Your task to perform on an android device: check data usage Image 0: 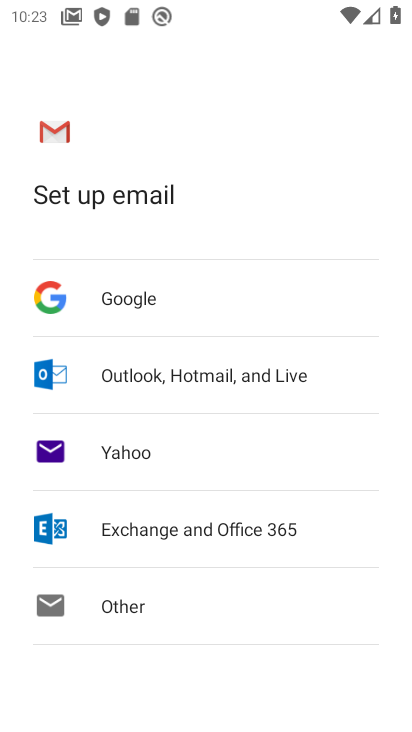
Step 0: press home button
Your task to perform on an android device: check data usage Image 1: 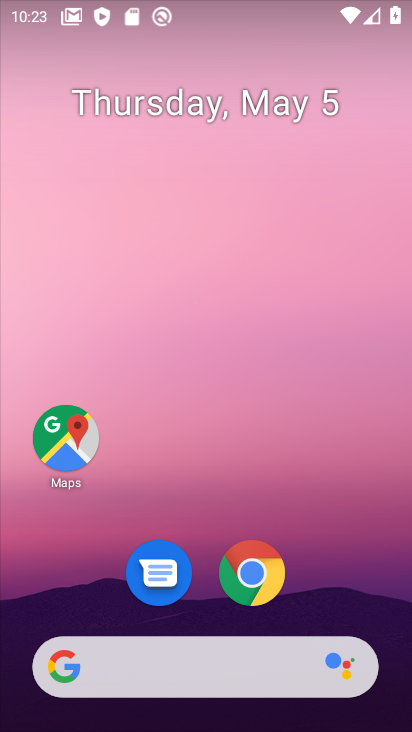
Step 1: drag from (45, 597) to (315, 166)
Your task to perform on an android device: check data usage Image 2: 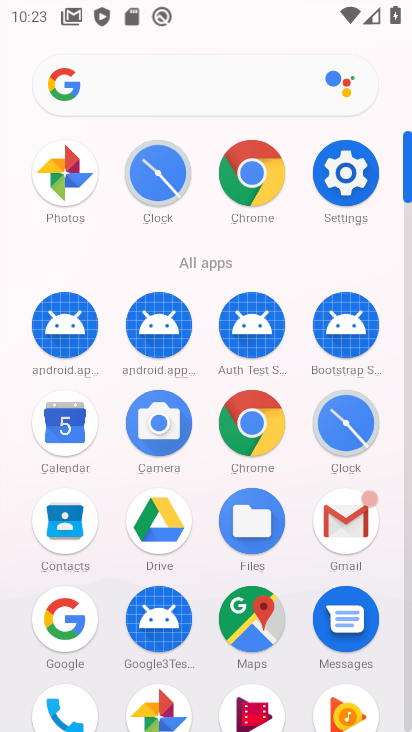
Step 2: click (347, 162)
Your task to perform on an android device: check data usage Image 3: 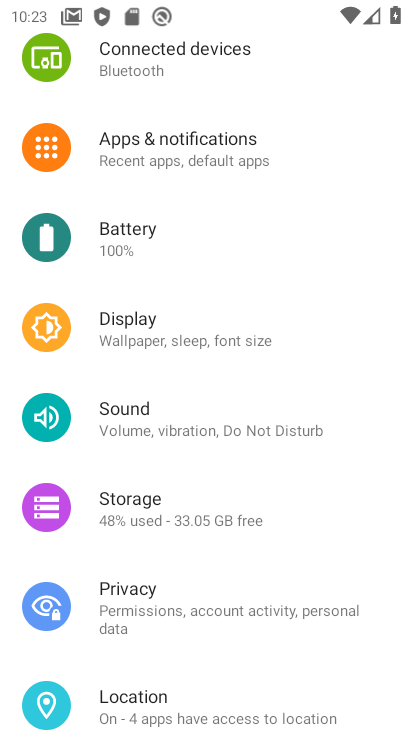
Step 3: drag from (205, 119) to (194, 485)
Your task to perform on an android device: check data usage Image 4: 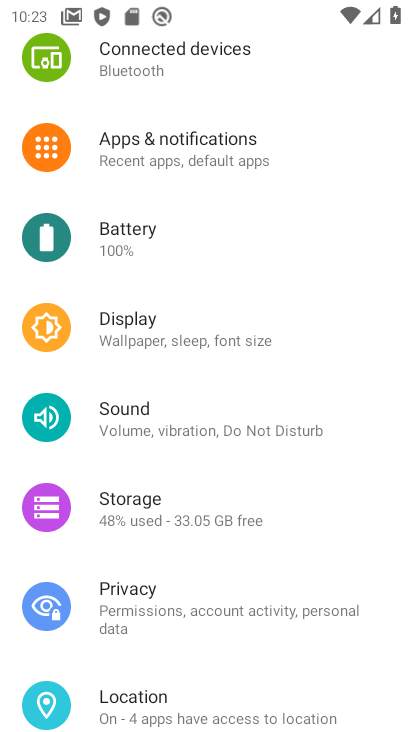
Step 4: drag from (175, 90) to (175, 464)
Your task to perform on an android device: check data usage Image 5: 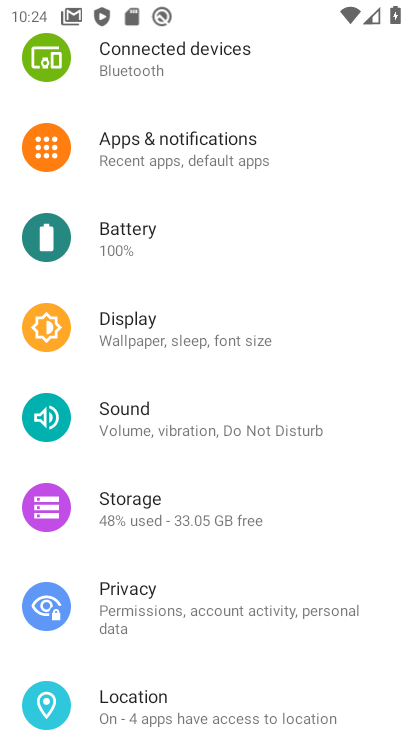
Step 5: drag from (183, 210) to (193, 500)
Your task to perform on an android device: check data usage Image 6: 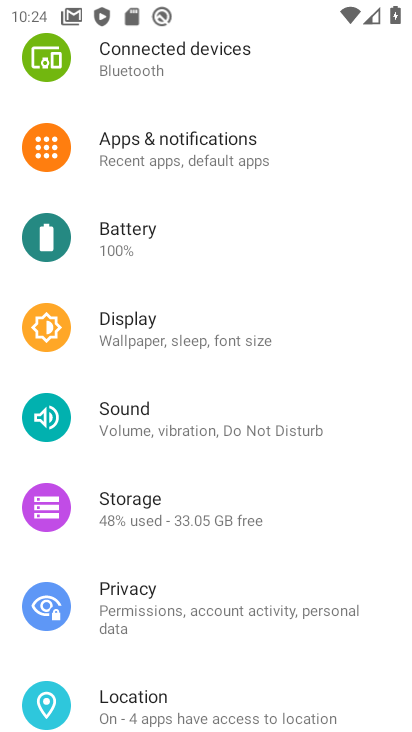
Step 6: drag from (181, 155) to (166, 438)
Your task to perform on an android device: check data usage Image 7: 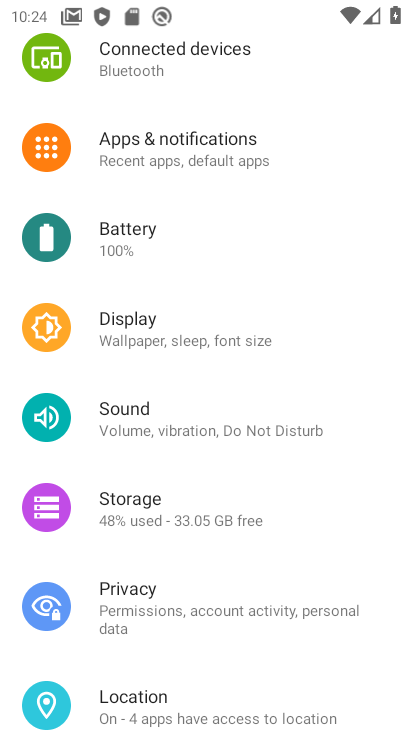
Step 7: drag from (138, 445) to (281, 122)
Your task to perform on an android device: check data usage Image 8: 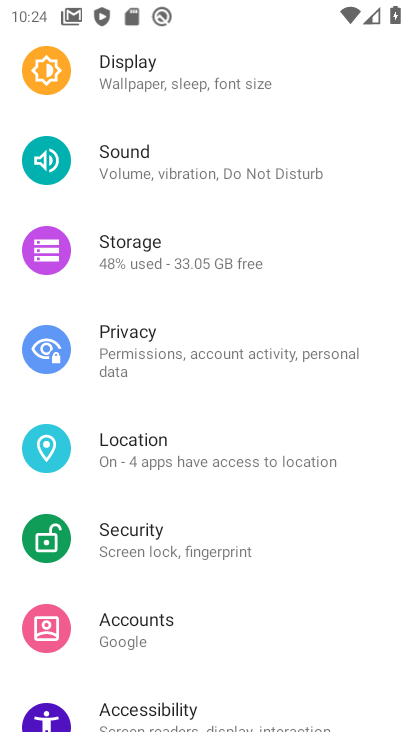
Step 8: drag from (300, 101) to (267, 690)
Your task to perform on an android device: check data usage Image 9: 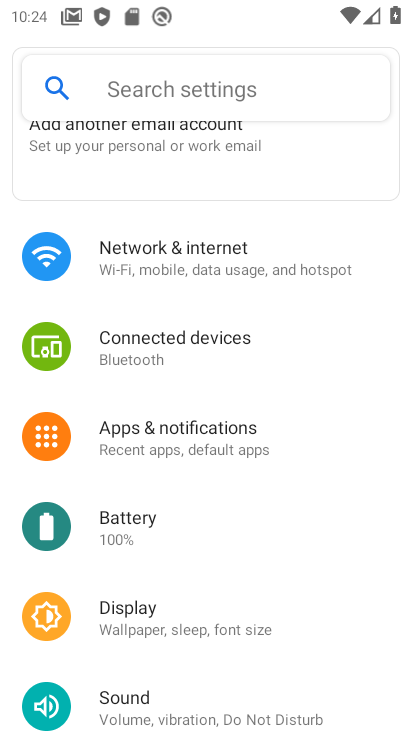
Step 9: click (211, 257)
Your task to perform on an android device: check data usage Image 10: 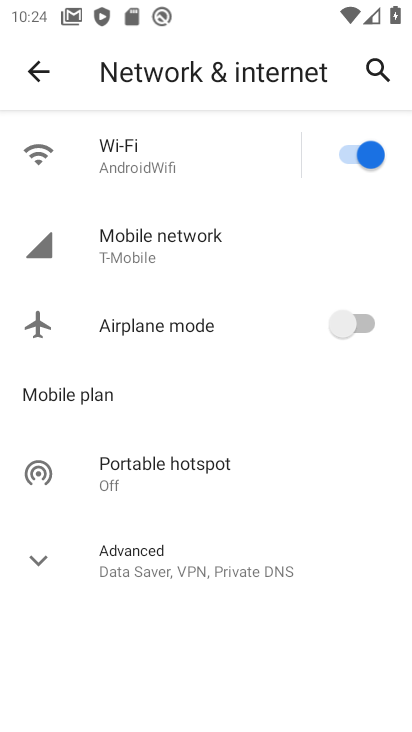
Step 10: click (213, 246)
Your task to perform on an android device: check data usage Image 11: 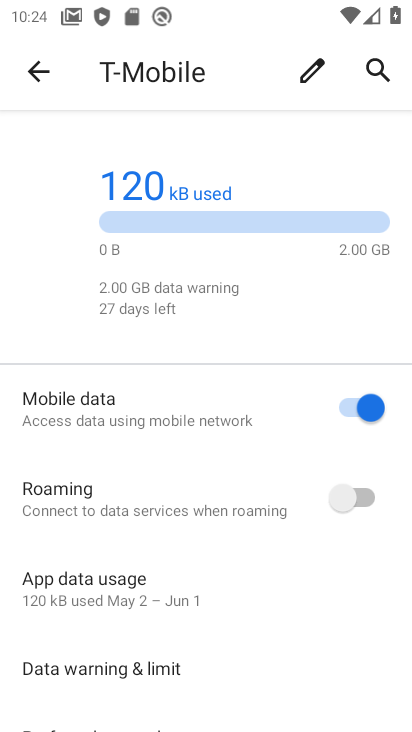
Step 11: task complete